Your task to perform on an android device: snooze an email in the gmail app Image 0: 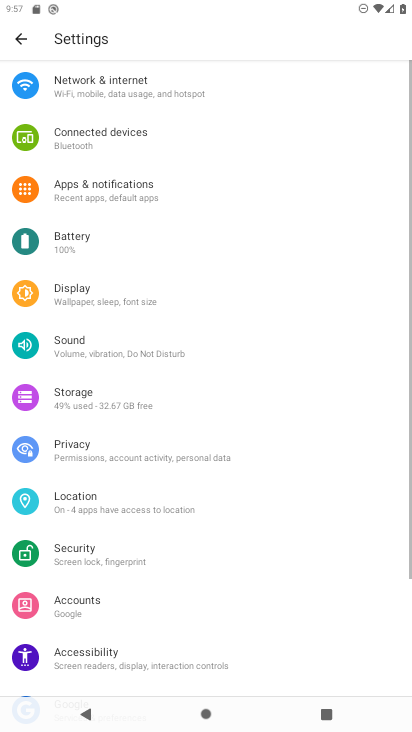
Step 0: press home button
Your task to perform on an android device: snooze an email in the gmail app Image 1: 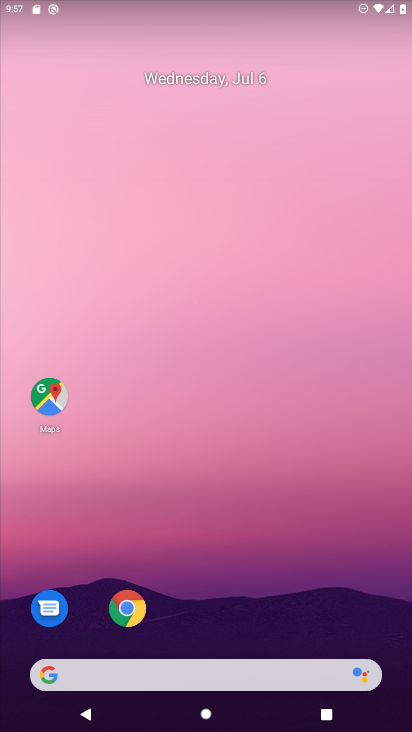
Step 1: drag from (137, 664) to (153, 231)
Your task to perform on an android device: snooze an email in the gmail app Image 2: 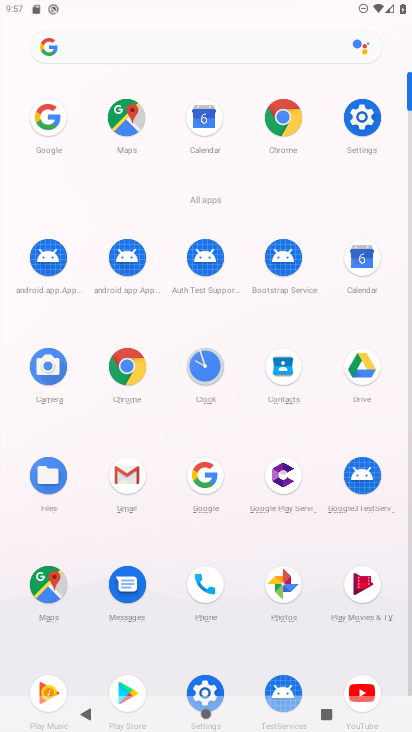
Step 2: click (134, 472)
Your task to perform on an android device: snooze an email in the gmail app Image 3: 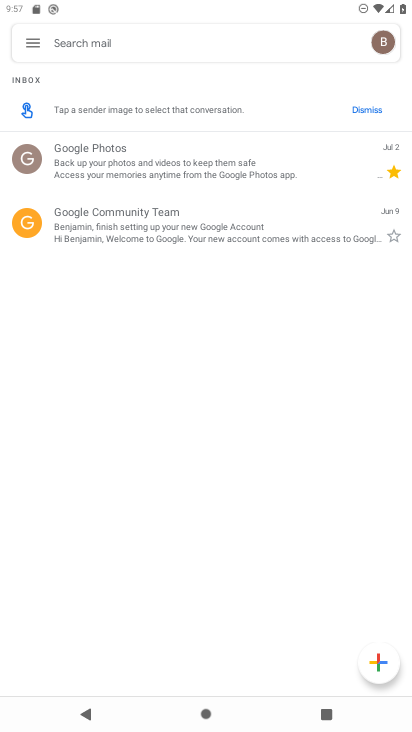
Step 3: click (93, 174)
Your task to perform on an android device: snooze an email in the gmail app Image 4: 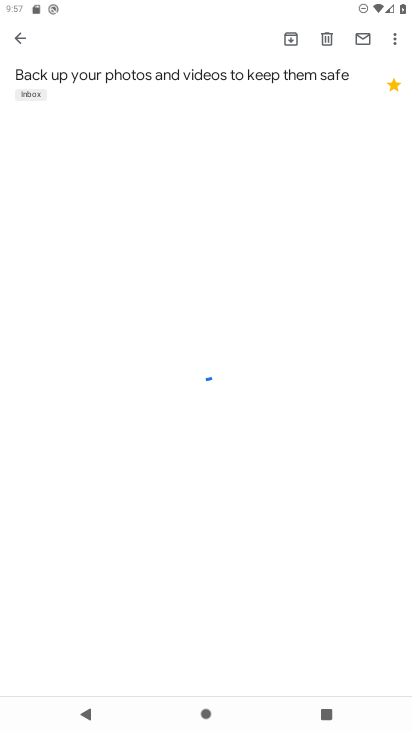
Step 4: click (395, 35)
Your task to perform on an android device: snooze an email in the gmail app Image 5: 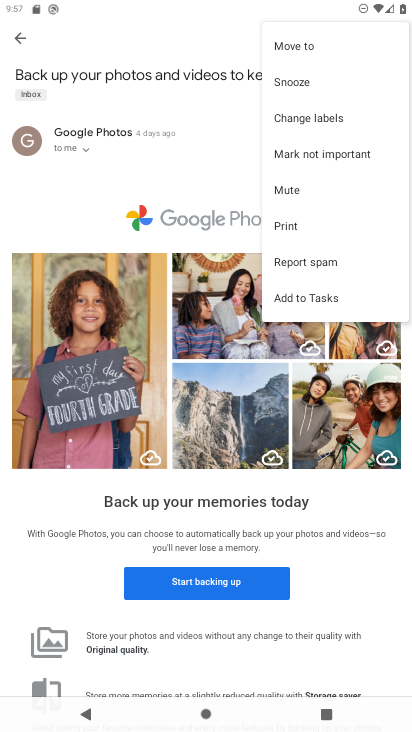
Step 5: click (300, 76)
Your task to perform on an android device: snooze an email in the gmail app Image 6: 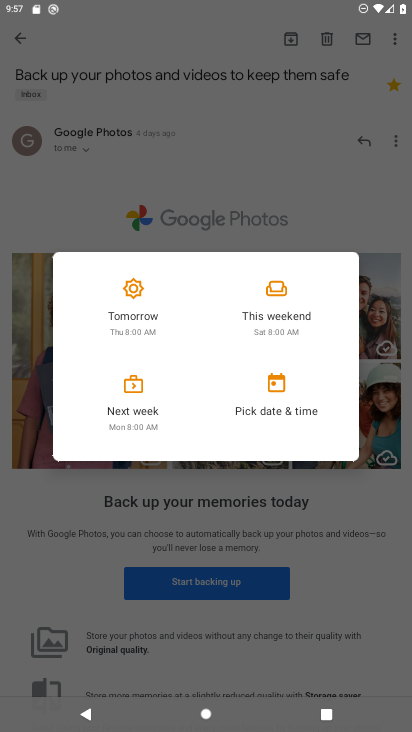
Step 6: click (125, 398)
Your task to perform on an android device: snooze an email in the gmail app Image 7: 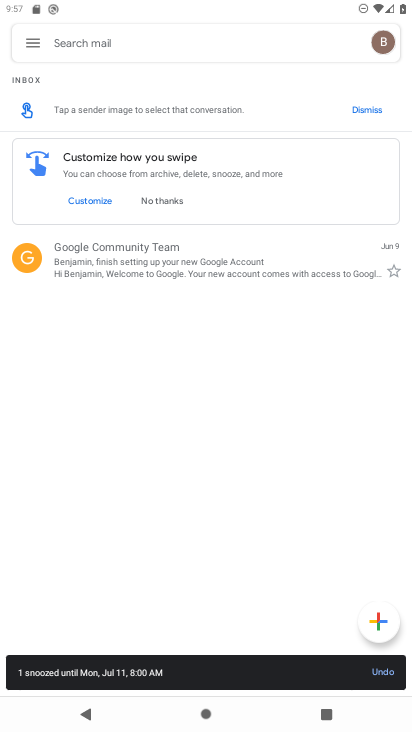
Step 7: task complete